Your task to perform on an android device: What's the news in Nepal? Image 0: 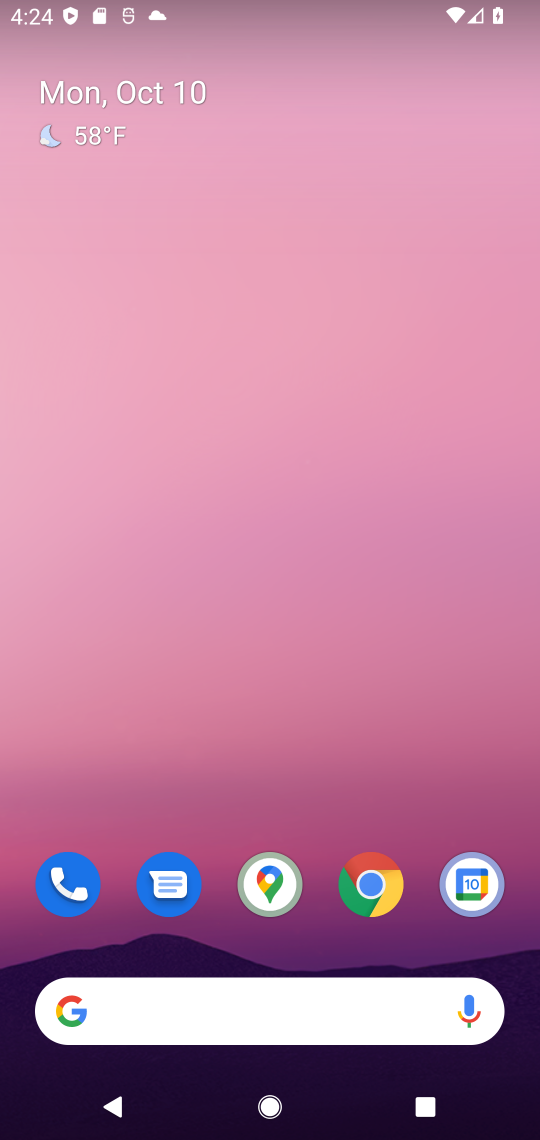
Step 0: click (370, 872)
Your task to perform on an android device: What's the news in Nepal? Image 1: 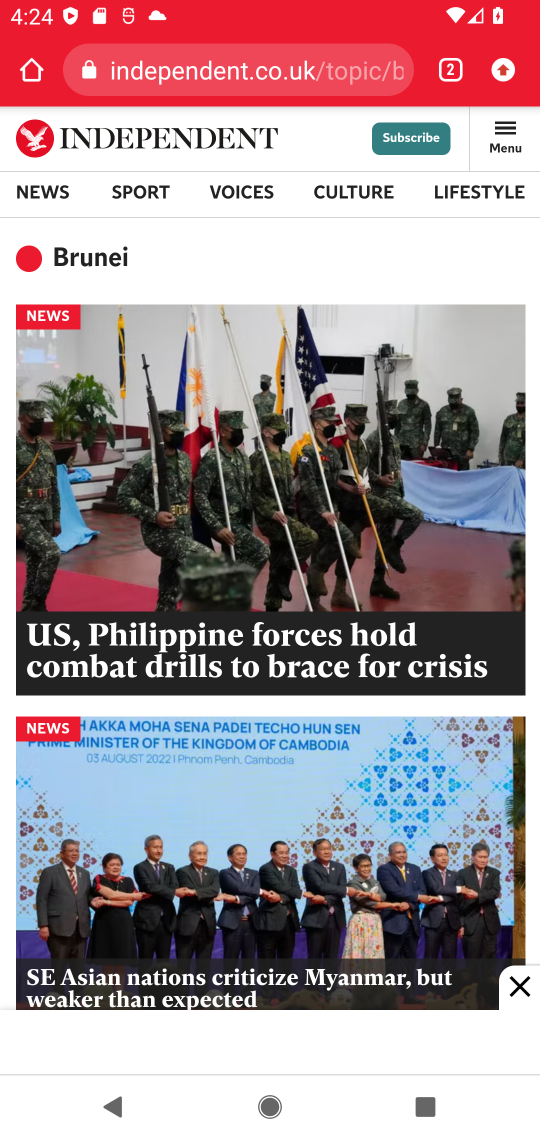
Step 1: click (276, 82)
Your task to perform on an android device: What's the news in Nepal? Image 2: 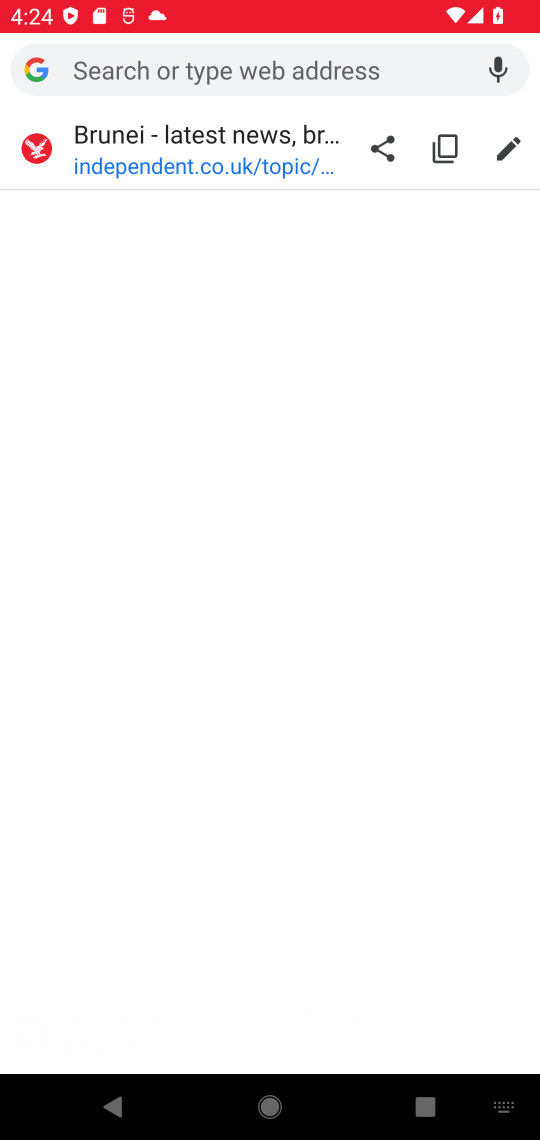
Step 2: type "What's the news in Nepal?"
Your task to perform on an android device: What's the news in Nepal? Image 3: 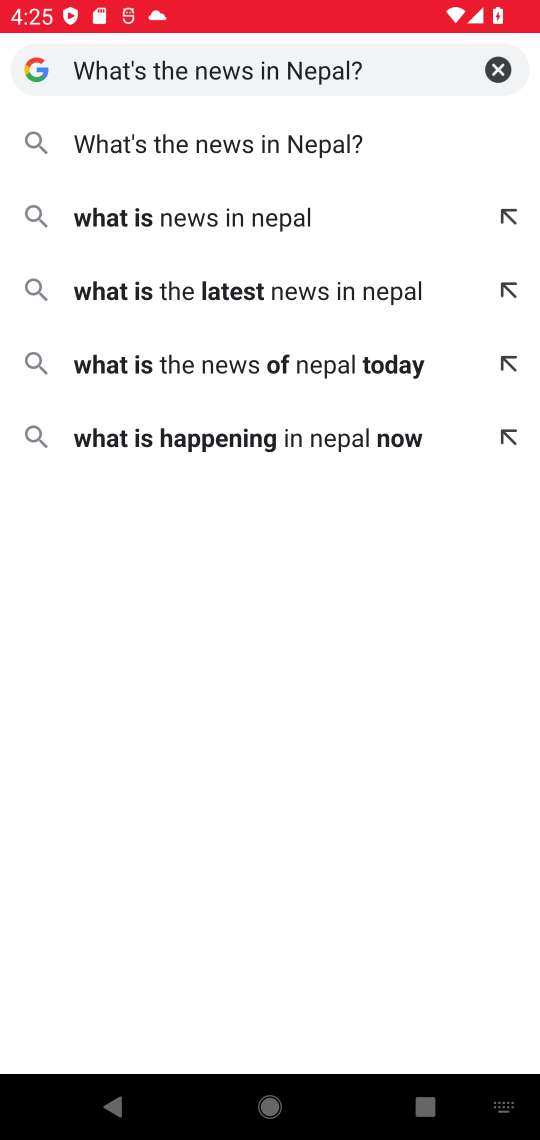
Step 3: click (156, 147)
Your task to perform on an android device: What's the news in Nepal? Image 4: 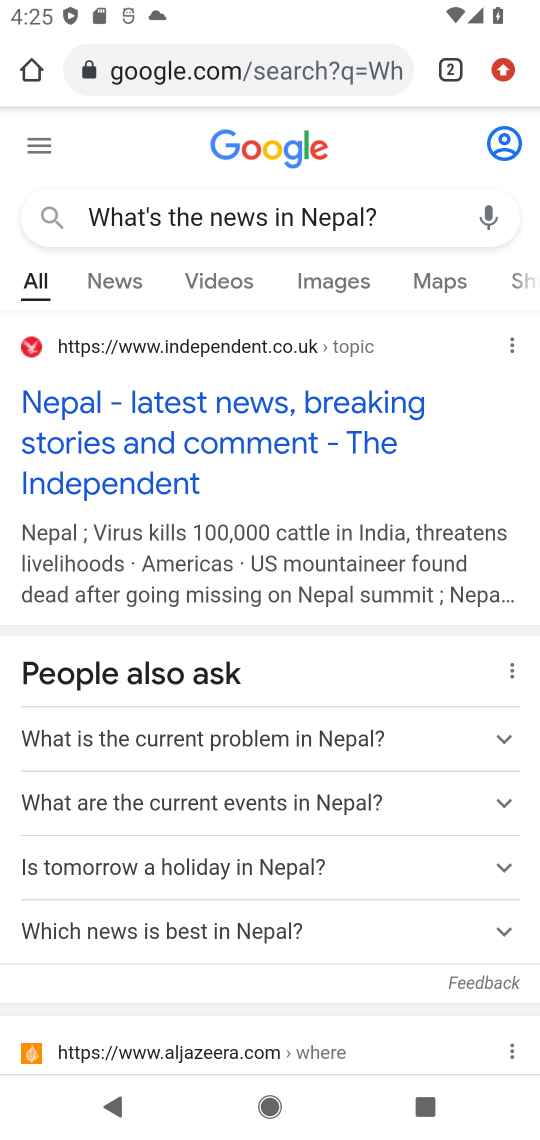
Step 4: click (257, 451)
Your task to perform on an android device: What's the news in Nepal? Image 5: 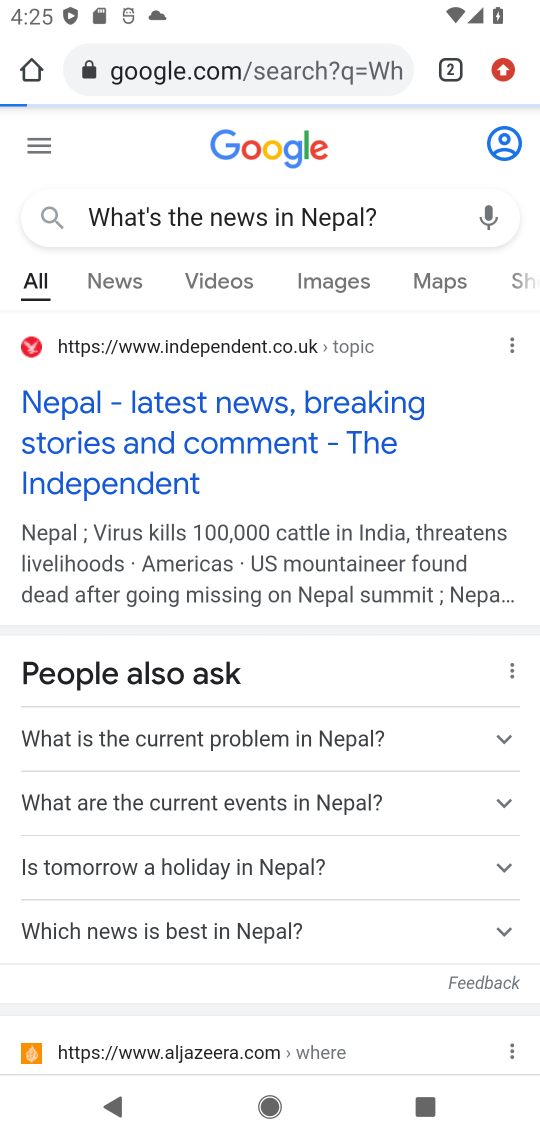
Step 5: click (257, 451)
Your task to perform on an android device: What's the news in Nepal? Image 6: 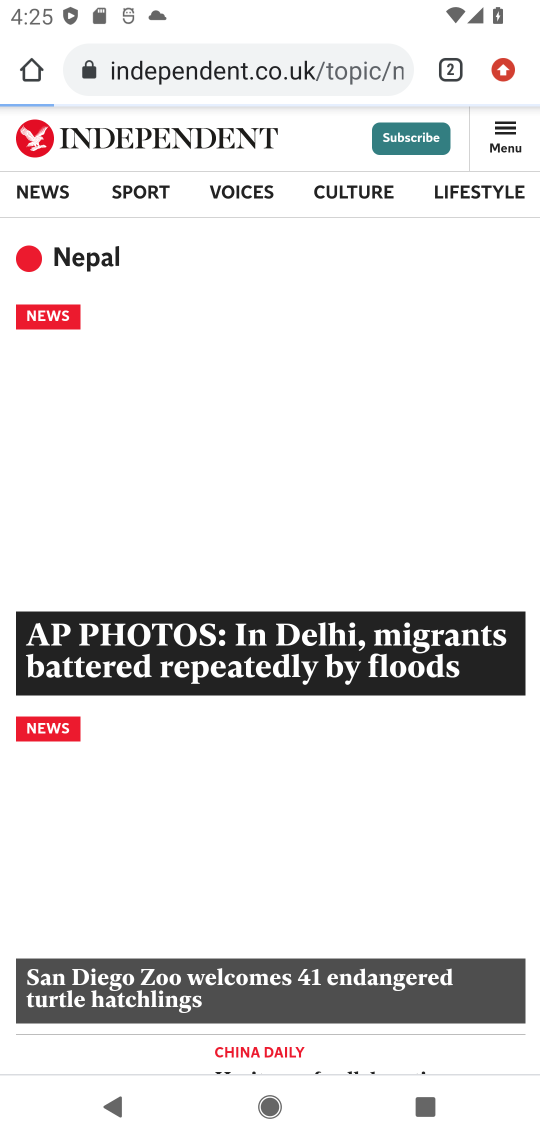
Step 6: click (257, 451)
Your task to perform on an android device: What's the news in Nepal? Image 7: 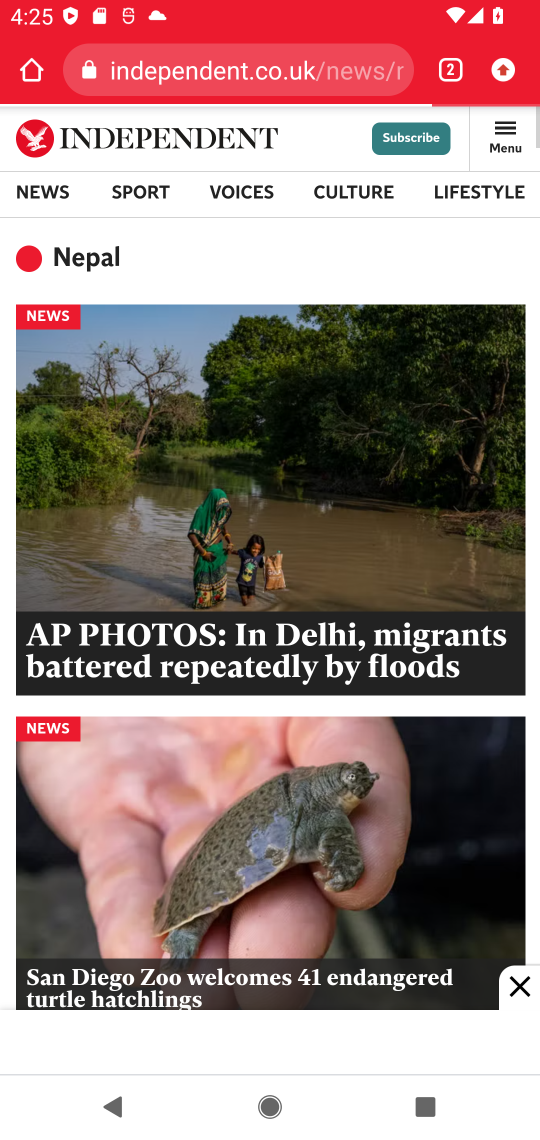
Step 7: click (257, 451)
Your task to perform on an android device: What's the news in Nepal? Image 8: 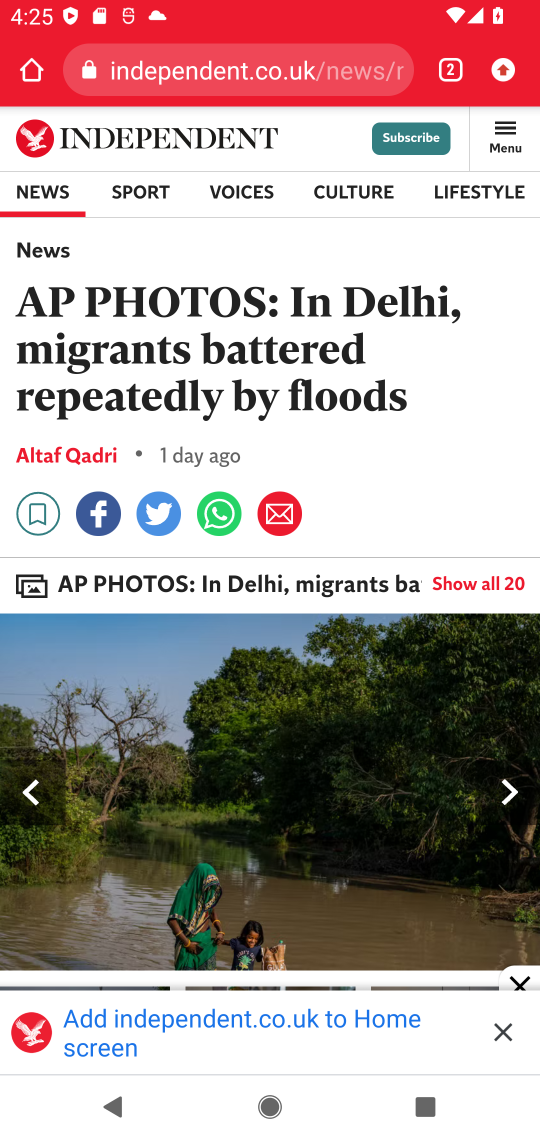
Step 8: click (322, 81)
Your task to perform on an android device: What's the news in Nepal? Image 9: 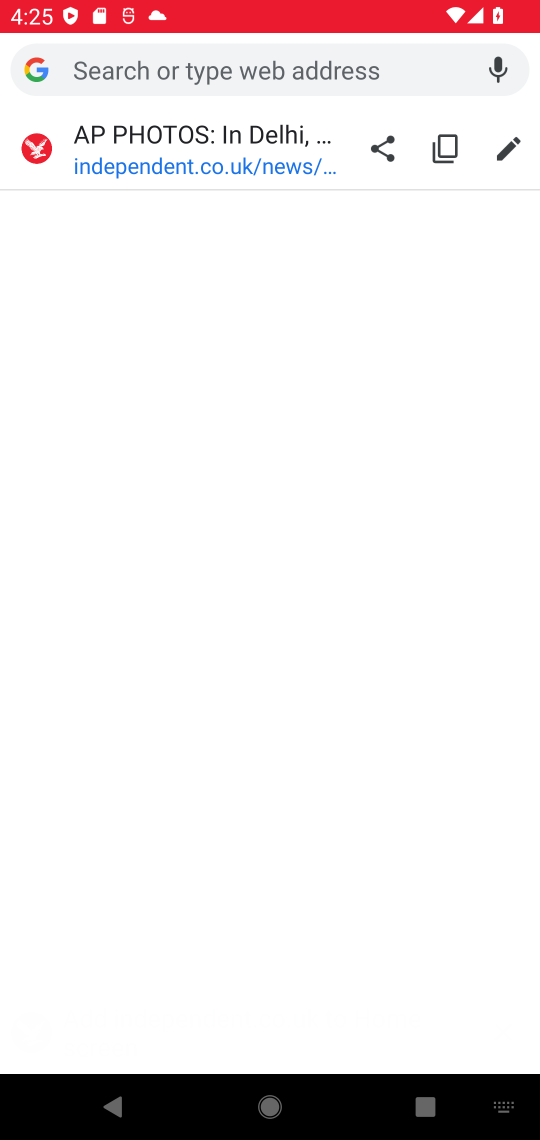
Step 9: type "What's the news in Nepal?"
Your task to perform on an android device: What's the news in Nepal? Image 10: 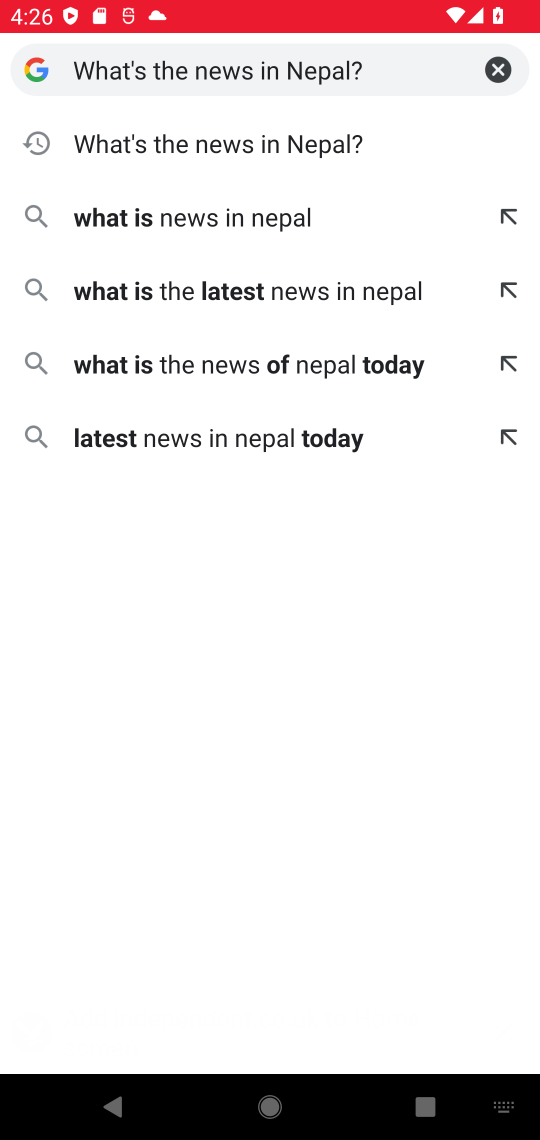
Step 10: click (298, 158)
Your task to perform on an android device: What's the news in Nepal? Image 11: 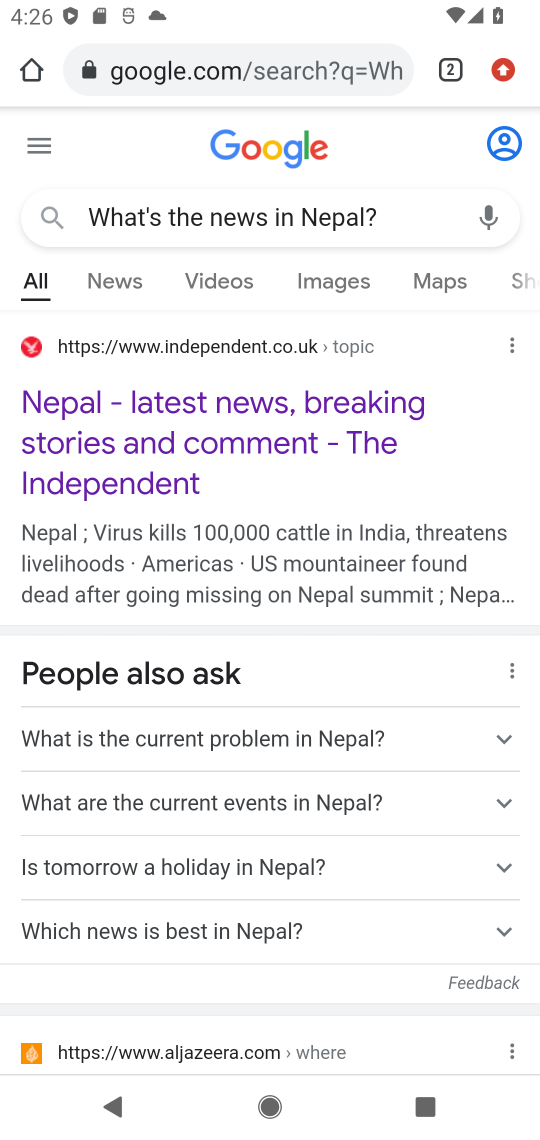
Step 11: click (140, 416)
Your task to perform on an android device: What's the news in Nepal? Image 12: 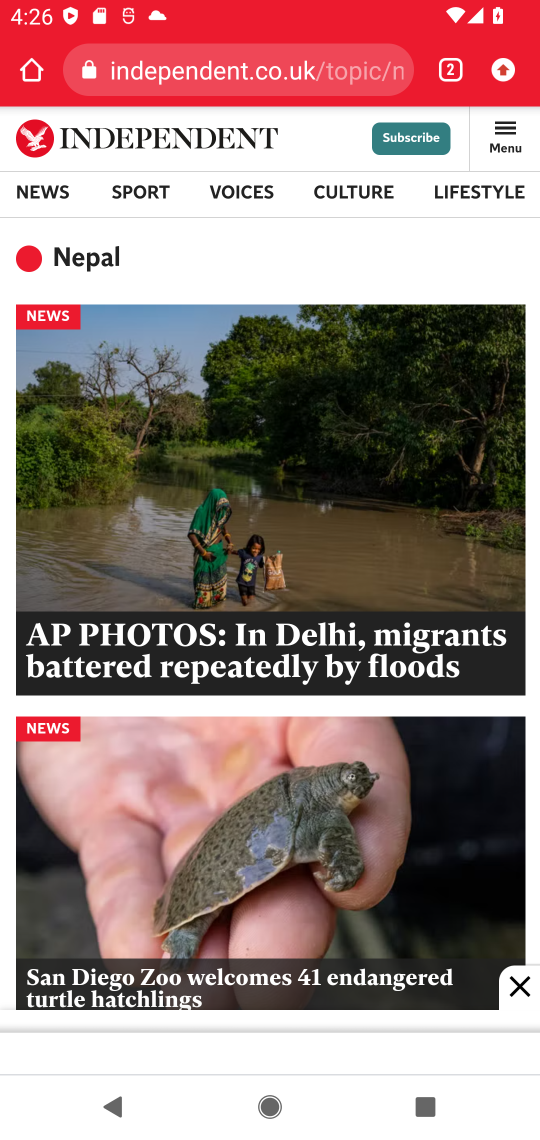
Step 12: task complete